Your task to perform on an android device: Open Android settings Image 0: 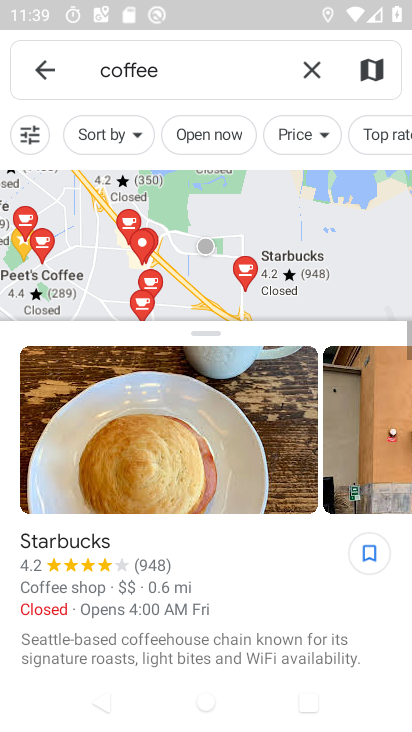
Step 0: drag from (312, 584) to (320, 62)
Your task to perform on an android device: Open Android settings Image 1: 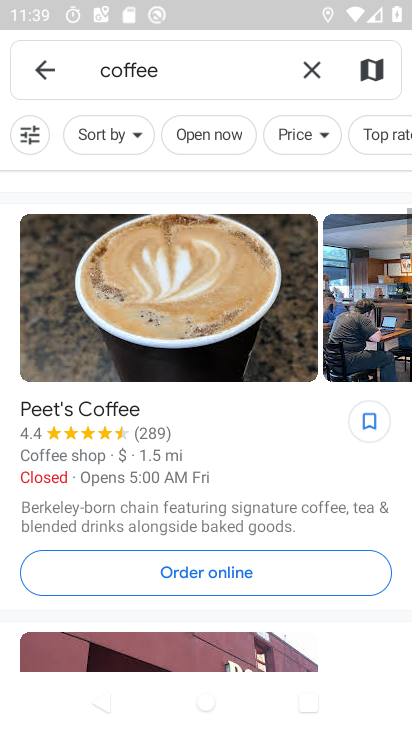
Step 1: press home button
Your task to perform on an android device: Open Android settings Image 2: 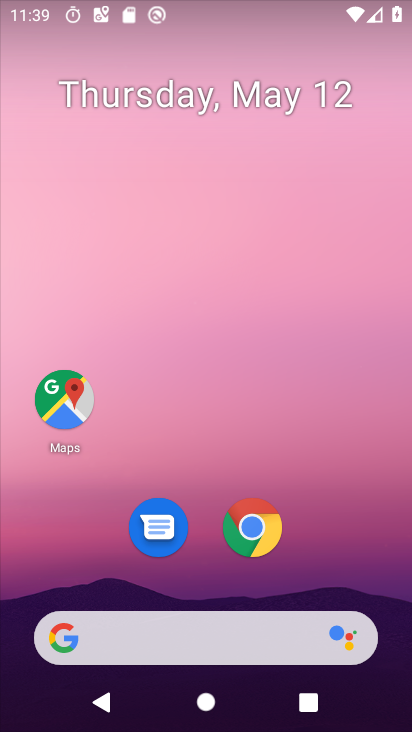
Step 2: drag from (294, 585) to (228, 55)
Your task to perform on an android device: Open Android settings Image 3: 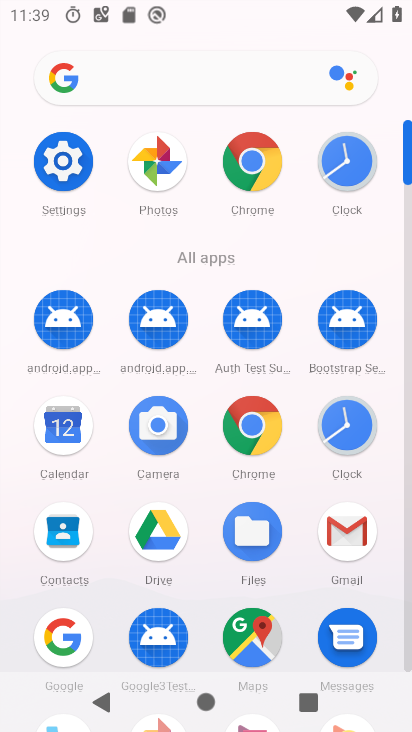
Step 3: click (64, 170)
Your task to perform on an android device: Open Android settings Image 4: 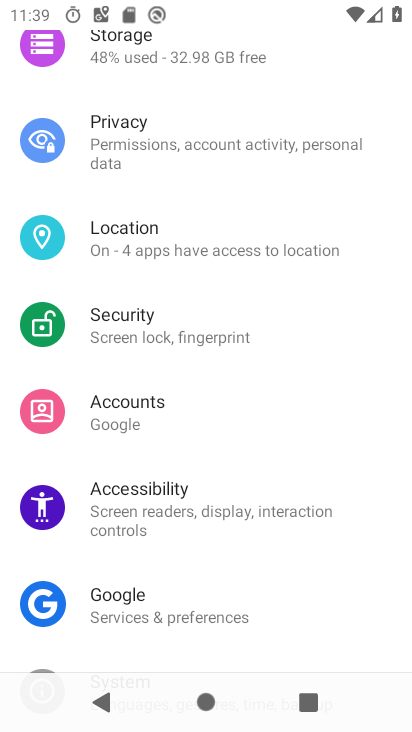
Step 4: drag from (248, 602) to (248, 132)
Your task to perform on an android device: Open Android settings Image 5: 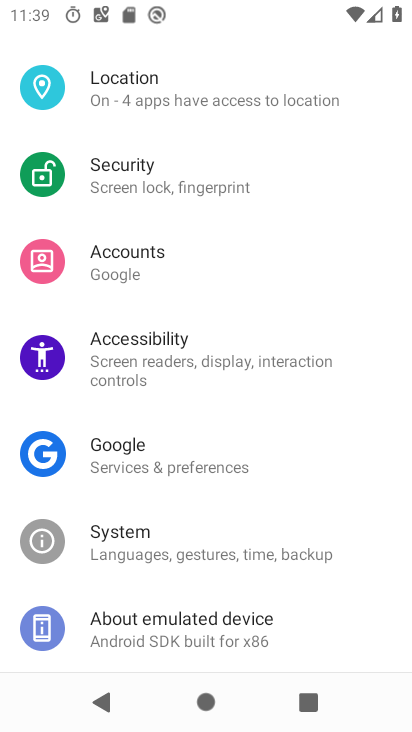
Step 5: click (163, 636)
Your task to perform on an android device: Open Android settings Image 6: 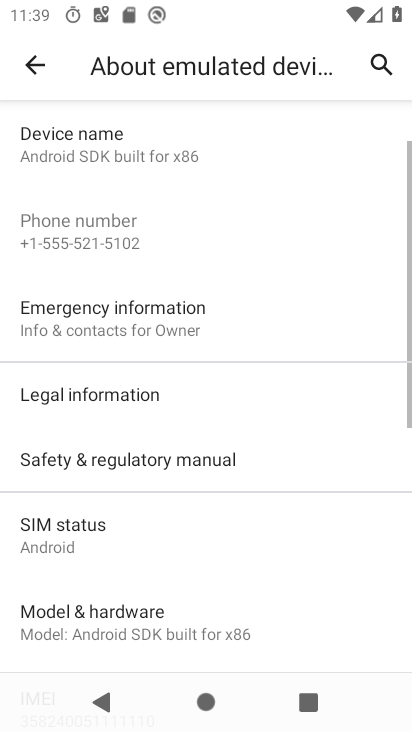
Step 6: drag from (203, 614) to (197, 120)
Your task to perform on an android device: Open Android settings Image 7: 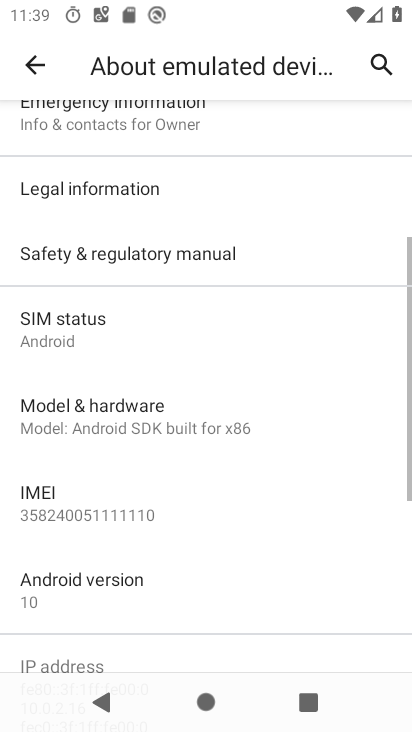
Step 7: click (62, 604)
Your task to perform on an android device: Open Android settings Image 8: 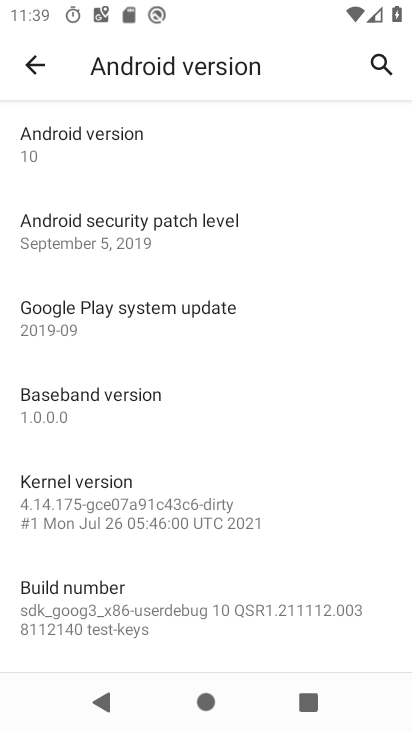
Step 8: task complete